Your task to perform on an android device: Open my contact list Image 0: 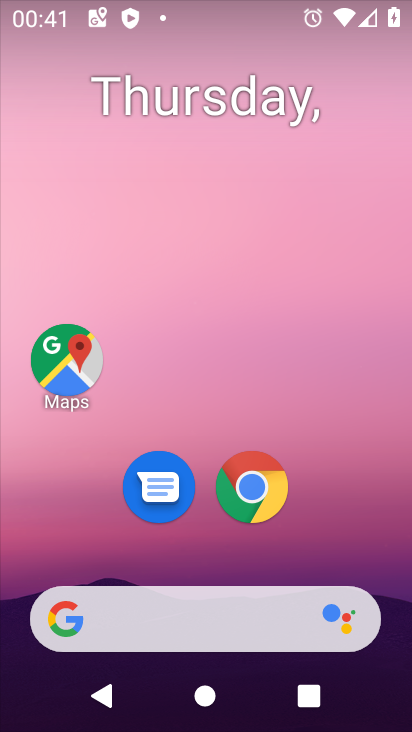
Step 0: drag from (351, 570) to (356, 1)
Your task to perform on an android device: Open my contact list Image 1: 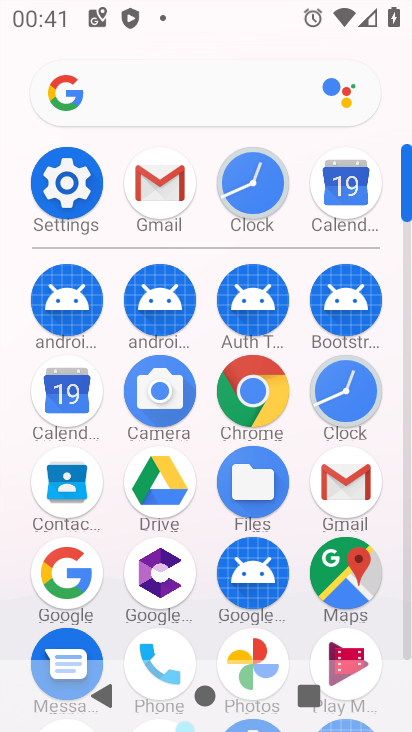
Step 1: click (69, 496)
Your task to perform on an android device: Open my contact list Image 2: 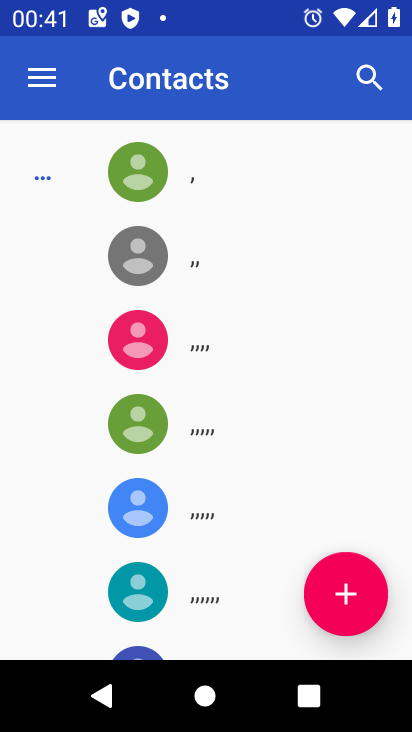
Step 2: task complete